Your task to perform on an android device: remove spam from my inbox in the gmail app Image 0: 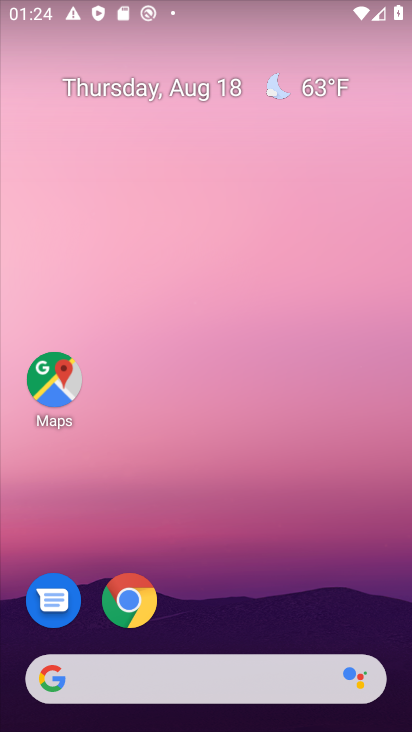
Step 0: drag from (246, 579) to (232, 197)
Your task to perform on an android device: remove spam from my inbox in the gmail app Image 1: 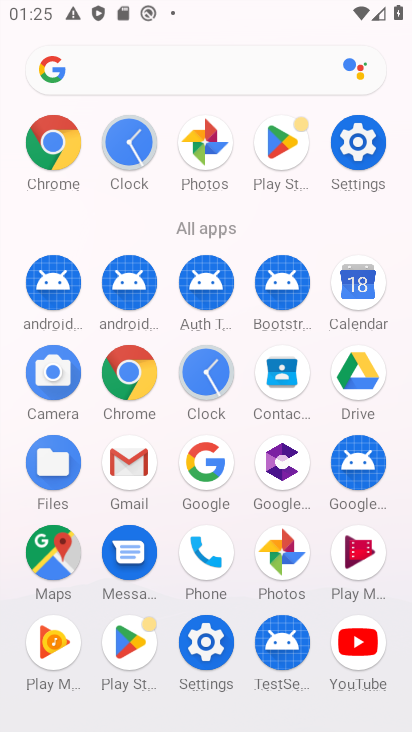
Step 1: click (133, 458)
Your task to perform on an android device: remove spam from my inbox in the gmail app Image 2: 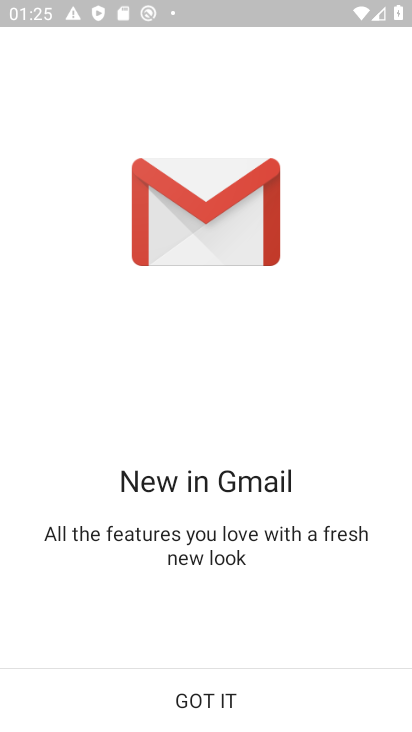
Step 2: click (213, 698)
Your task to perform on an android device: remove spam from my inbox in the gmail app Image 3: 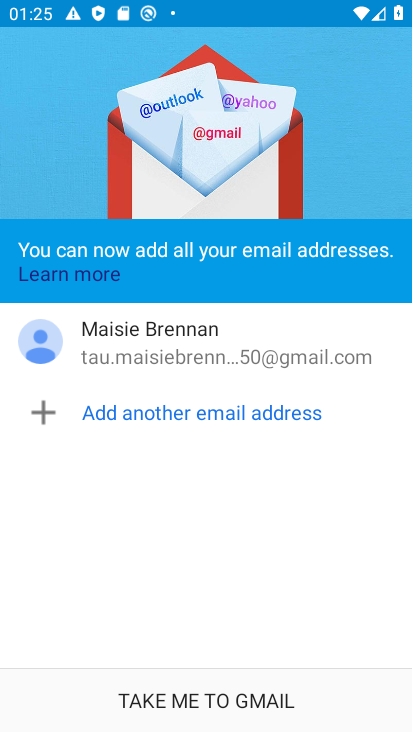
Step 3: click (196, 693)
Your task to perform on an android device: remove spam from my inbox in the gmail app Image 4: 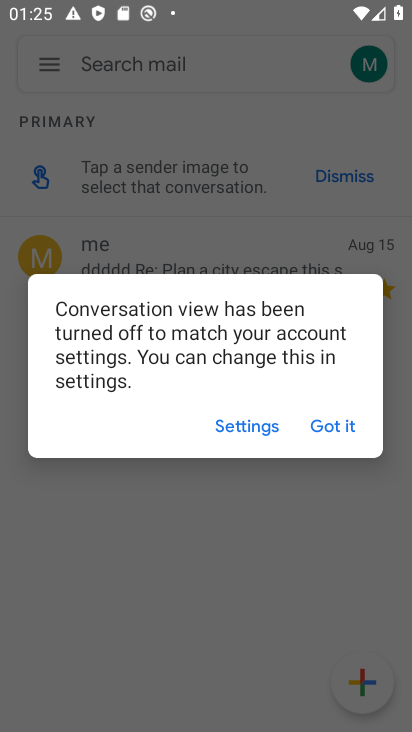
Step 4: click (343, 424)
Your task to perform on an android device: remove spam from my inbox in the gmail app Image 5: 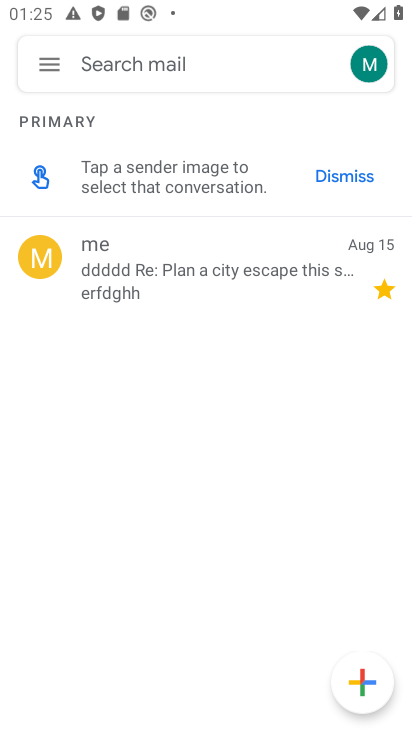
Step 5: click (47, 64)
Your task to perform on an android device: remove spam from my inbox in the gmail app Image 6: 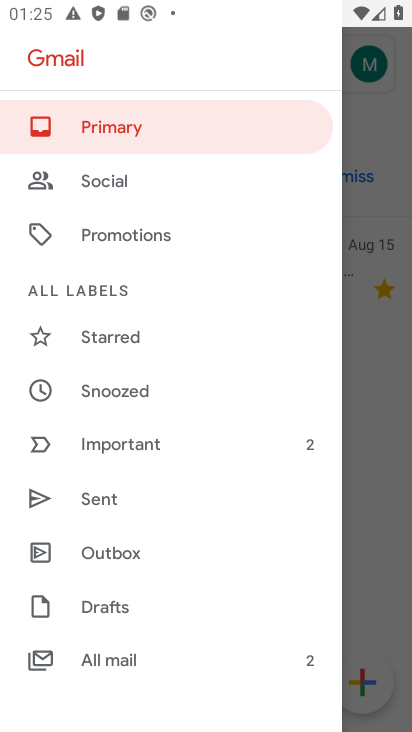
Step 6: drag from (177, 591) to (177, 420)
Your task to perform on an android device: remove spam from my inbox in the gmail app Image 7: 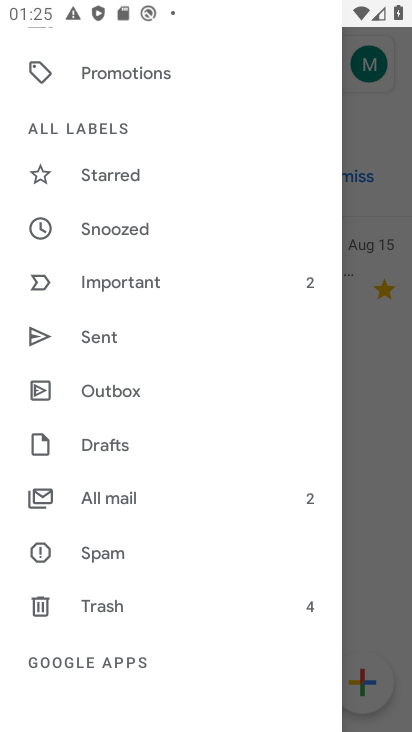
Step 7: click (100, 549)
Your task to perform on an android device: remove spam from my inbox in the gmail app Image 8: 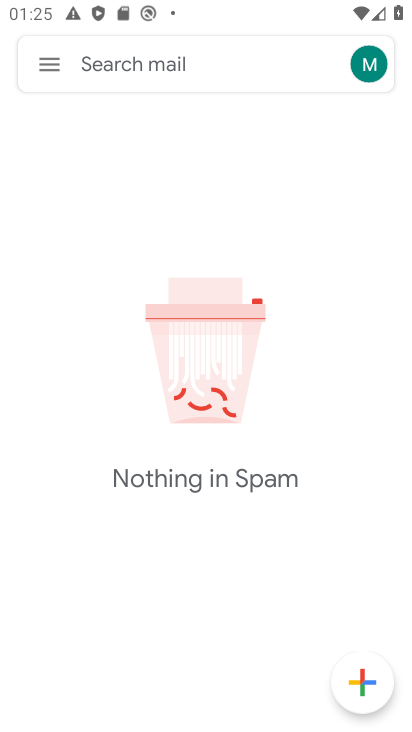
Step 8: task complete